Your task to perform on an android device: toggle improve location accuracy Image 0: 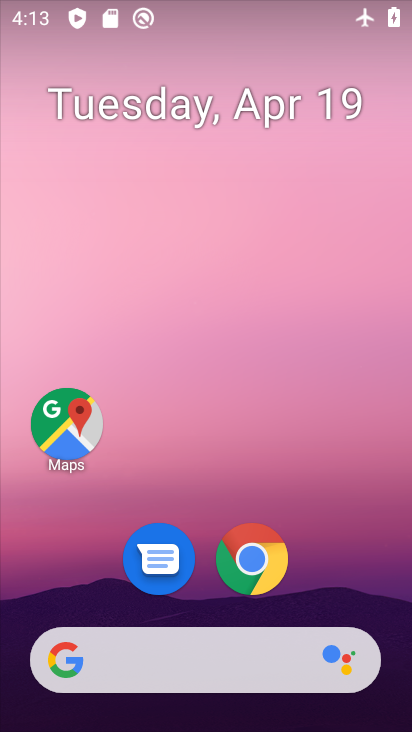
Step 0: drag from (347, 523) to (117, 5)
Your task to perform on an android device: toggle improve location accuracy Image 1: 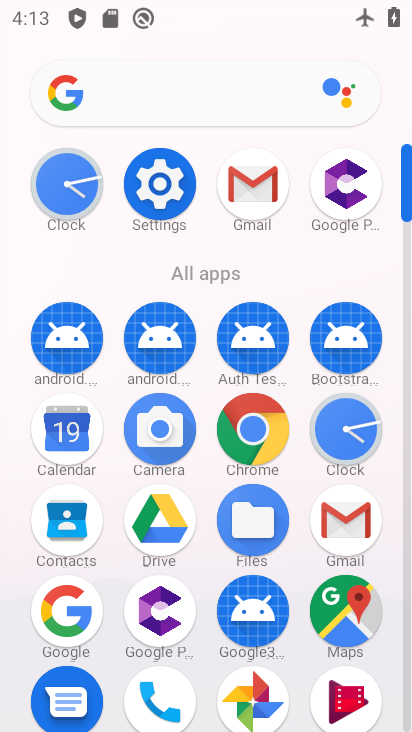
Step 1: click (157, 220)
Your task to perform on an android device: toggle improve location accuracy Image 2: 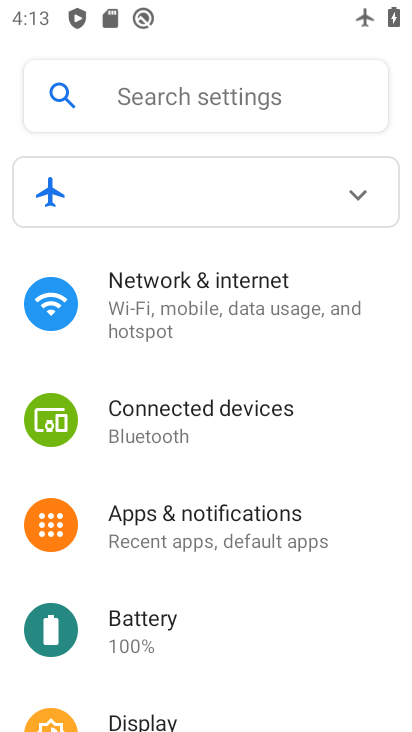
Step 2: drag from (284, 637) to (142, 127)
Your task to perform on an android device: toggle improve location accuracy Image 3: 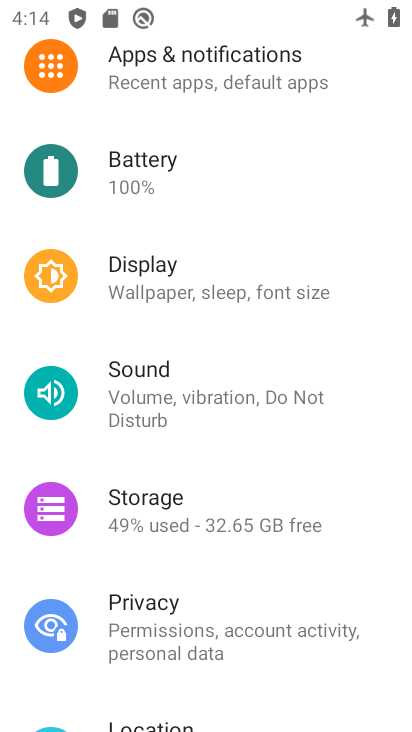
Step 3: drag from (221, 565) to (129, 202)
Your task to perform on an android device: toggle improve location accuracy Image 4: 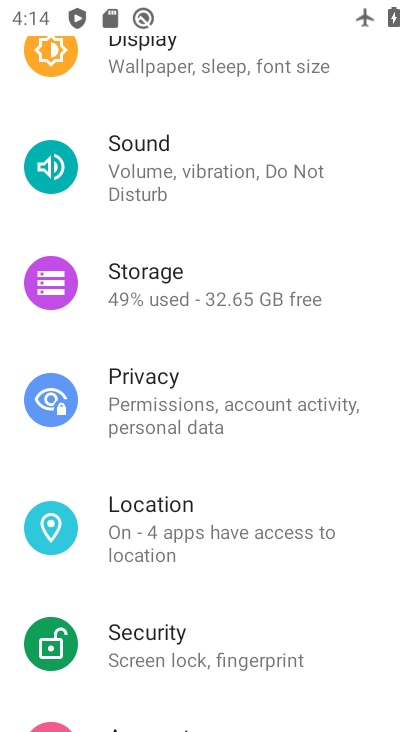
Step 4: drag from (289, 598) to (200, 203)
Your task to perform on an android device: toggle improve location accuracy Image 5: 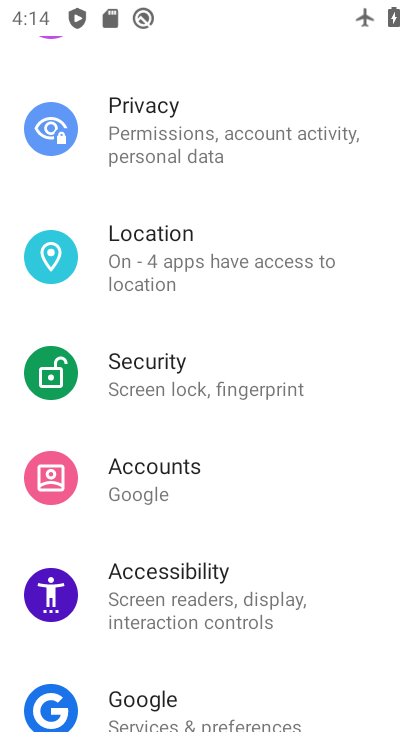
Step 5: drag from (248, 652) to (194, 297)
Your task to perform on an android device: toggle improve location accuracy Image 6: 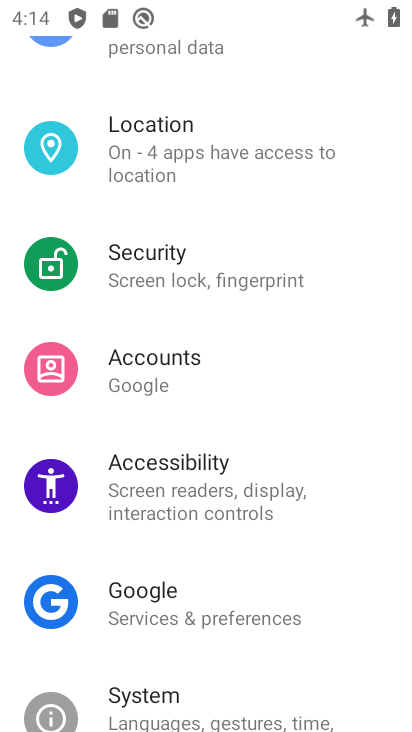
Step 6: drag from (290, 638) to (274, 390)
Your task to perform on an android device: toggle improve location accuracy Image 7: 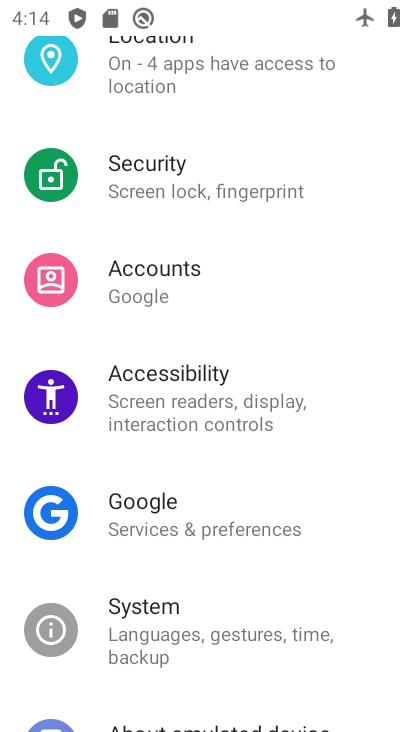
Step 7: click (195, 99)
Your task to perform on an android device: toggle improve location accuracy Image 8: 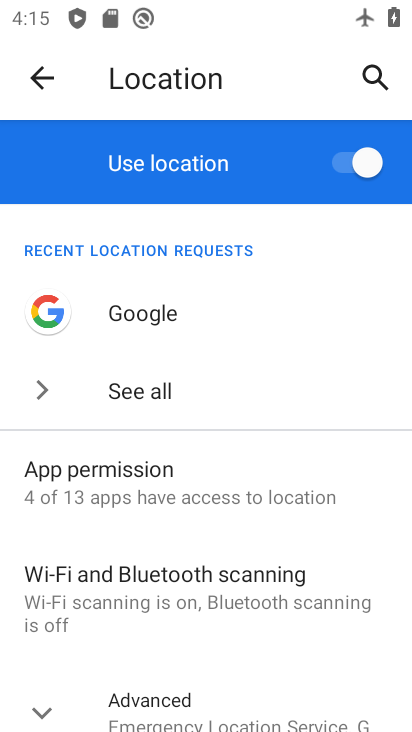
Step 8: click (255, 715)
Your task to perform on an android device: toggle improve location accuracy Image 9: 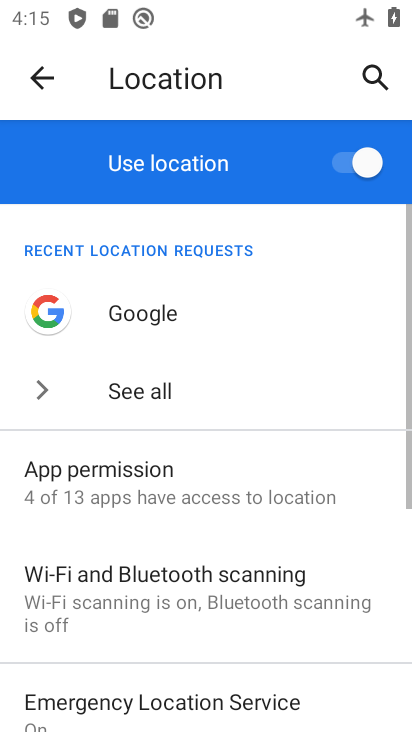
Step 9: drag from (266, 651) to (244, 228)
Your task to perform on an android device: toggle improve location accuracy Image 10: 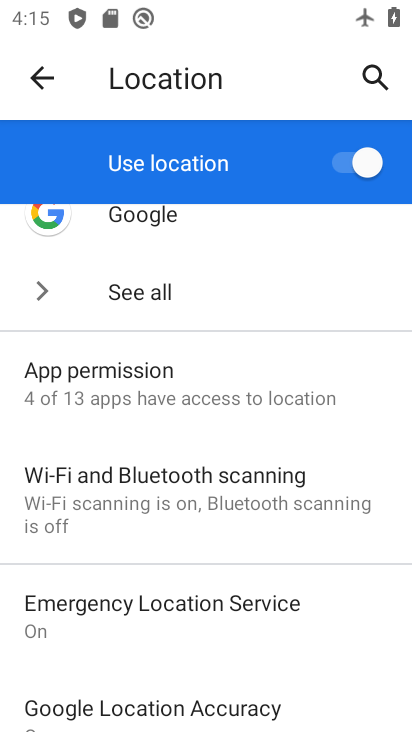
Step 10: drag from (277, 584) to (249, 78)
Your task to perform on an android device: toggle improve location accuracy Image 11: 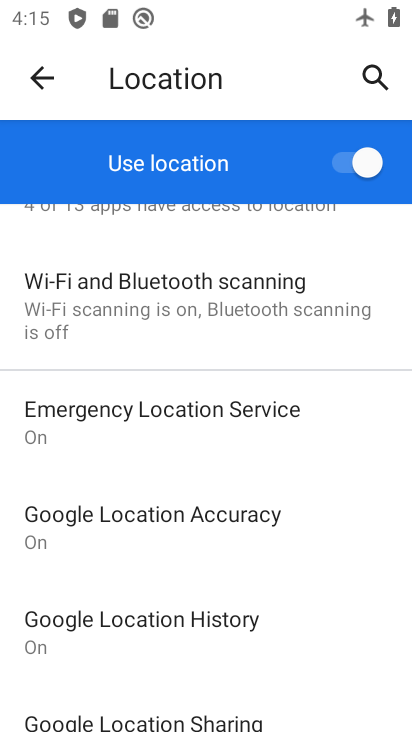
Step 11: click (223, 543)
Your task to perform on an android device: toggle improve location accuracy Image 12: 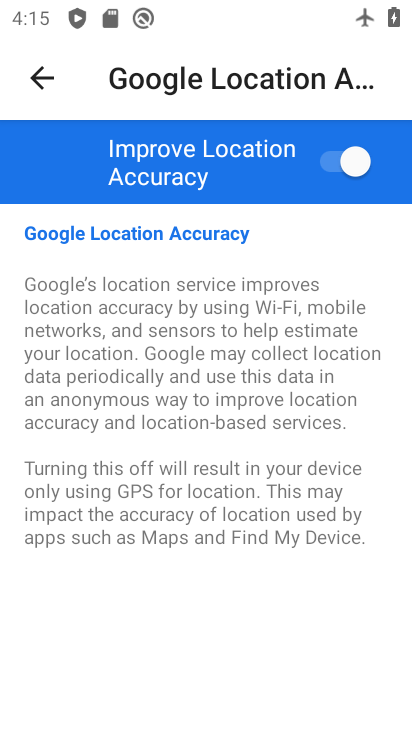
Step 12: click (315, 174)
Your task to perform on an android device: toggle improve location accuracy Image 13: 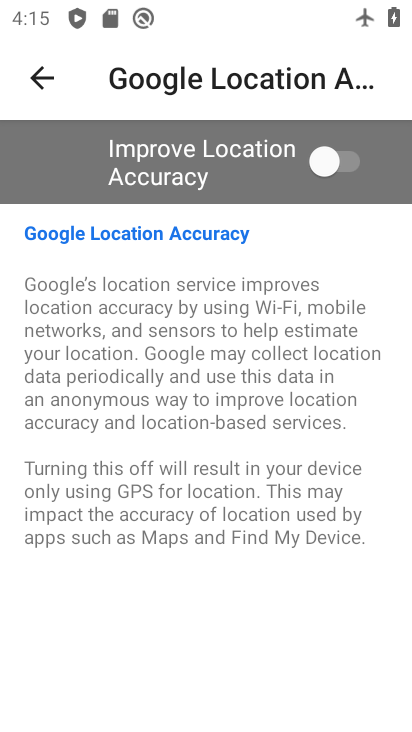
Step 13: task complete